Your task to perform on an android device: toggle show notifications on the lock screen Image 0: 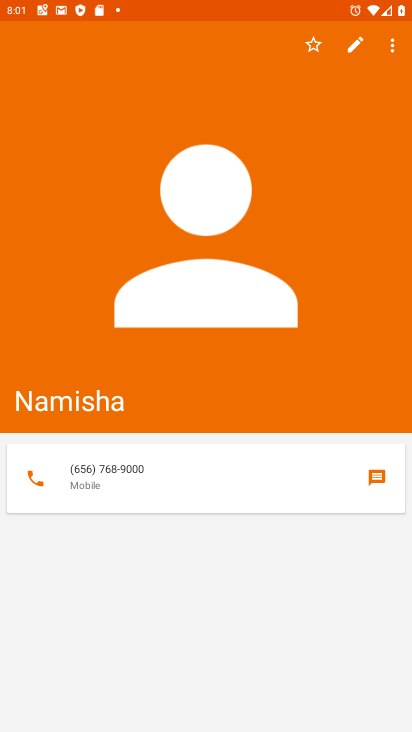
Step 0: press home button
Your task to perform on an android device: toggle show notifications on the lock screen Image 1: 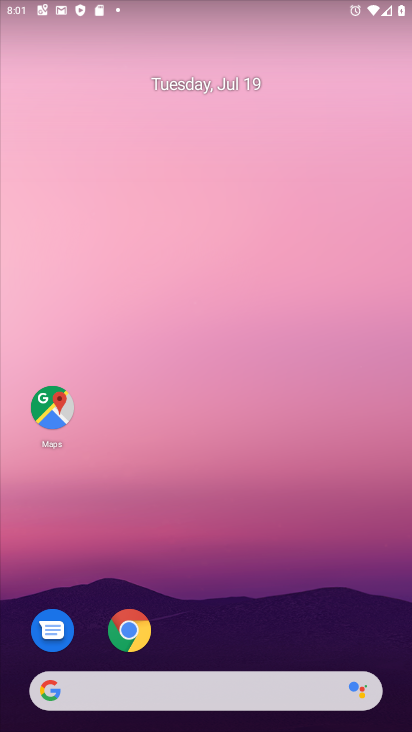
Step 1: drag from (187, 485) to (222, 110)
Your task to perform on an android device: toggle show notifications on the lock screen Image 2: 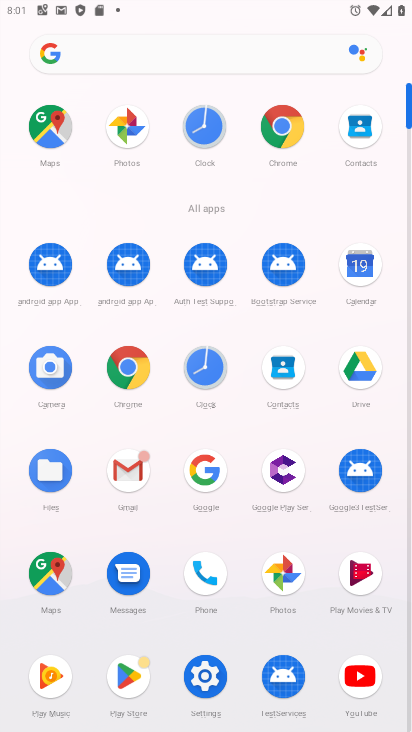
Step 2: click (200, 668)
Your task to perform on an android device: toggle show notifications on the lock screen Image 3: 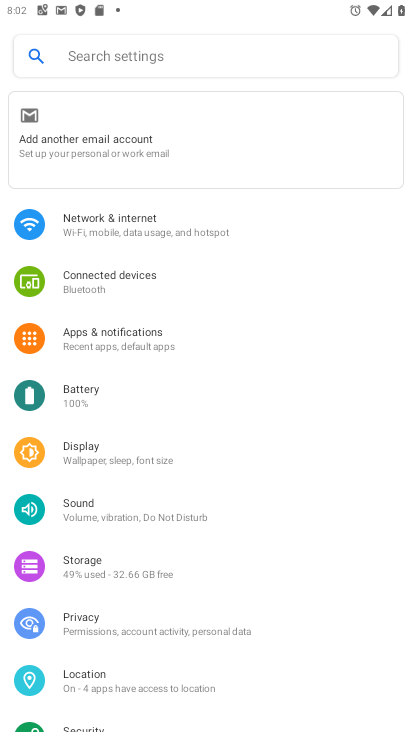
Step 3: click (130, 336)
Your task to perform on an android device: toggle show notifications on the lock screen Image 4: 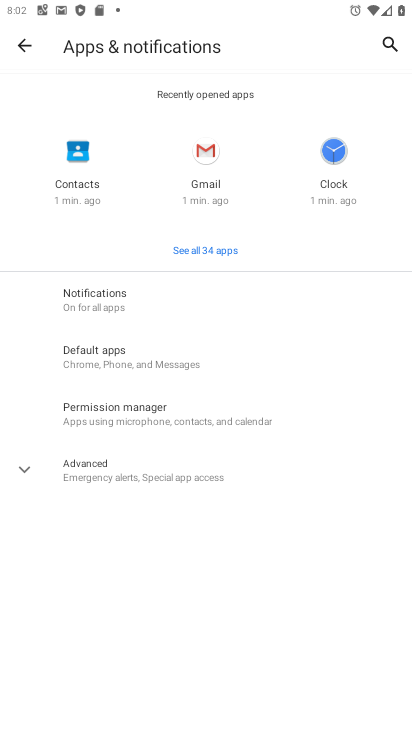
Step 4: click (107, 297)
Your task to perform on an android device: toggle show notifications on the lock screen Image 5: 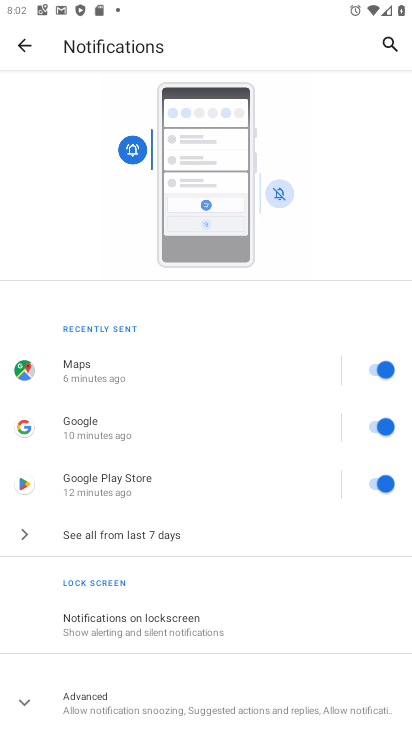
Step 5: click (144, 631)
Your task to perform on an android device: toggle show notifications on the lock screen Image 6: 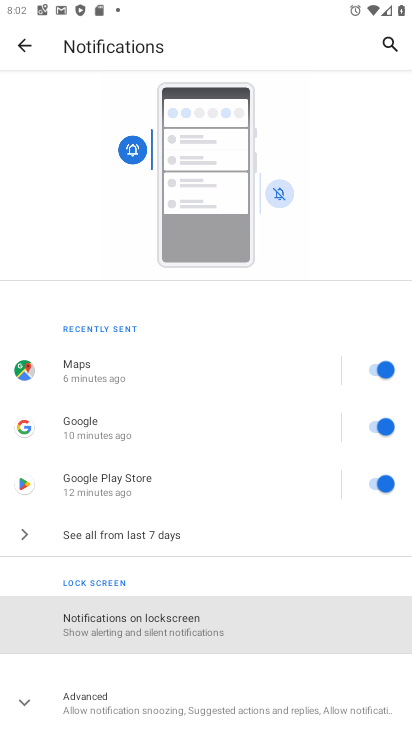
Step 6: click (144, 631)
Your task to perform on an android device: toggle show notifications on the lock screen Image 7: 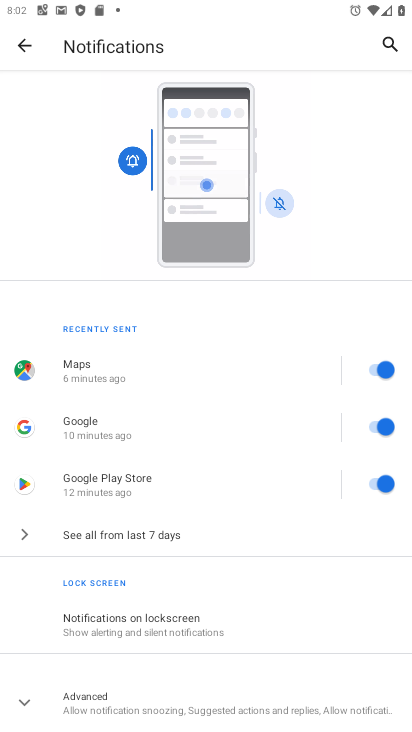
Step 7: click (130, 626)
Your task to perform on an android device: toggle show notifications on the lock screen Image 8: 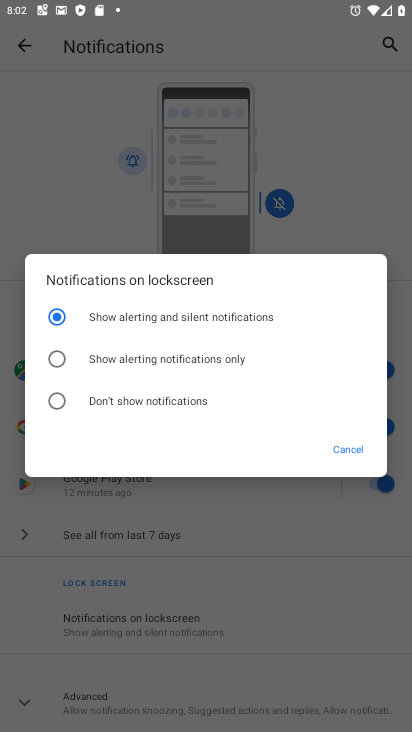
Step 8: click (56, 398)
Your task to perform on an android device: toggle show notifications on the lock screen Image 9: 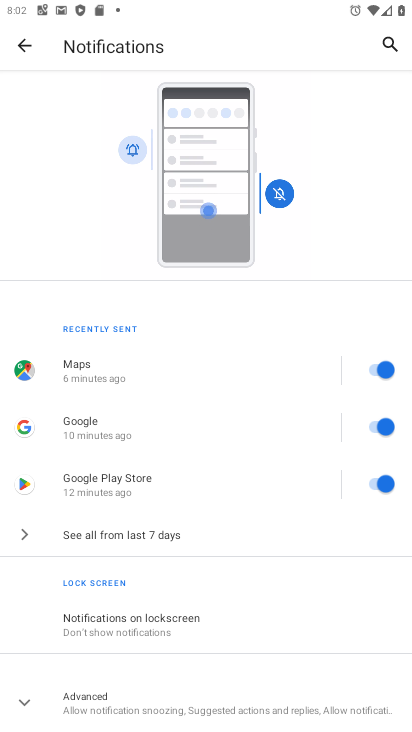
Step 9: task complete